Your task to perform on an android device: Open calendar and show me the first week of next month Image 0: 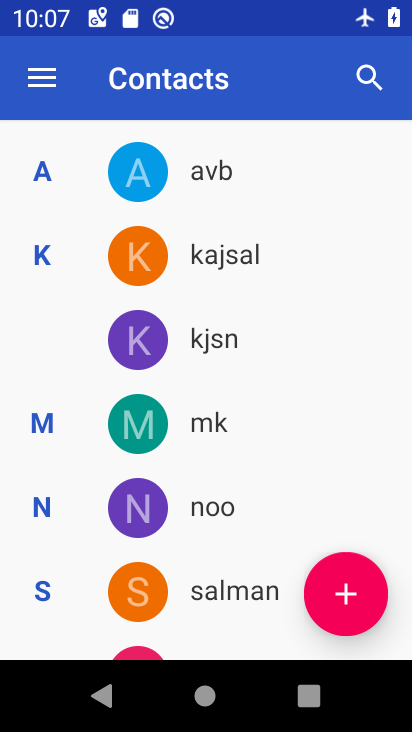
Step 0: press home button
Your task to perform on an android device: Open calendar and show me the first week of next month Image 1: 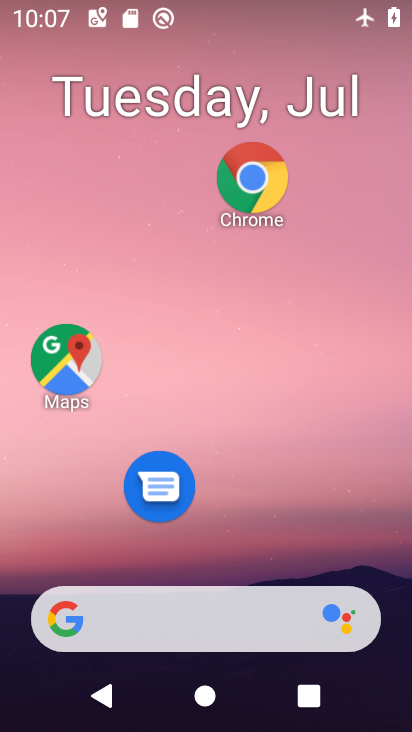
Step 1: drag from (176, 652) to (141, 69)
Your task to perform on an android device: Open calendar and show me the first week of next month Image 2: 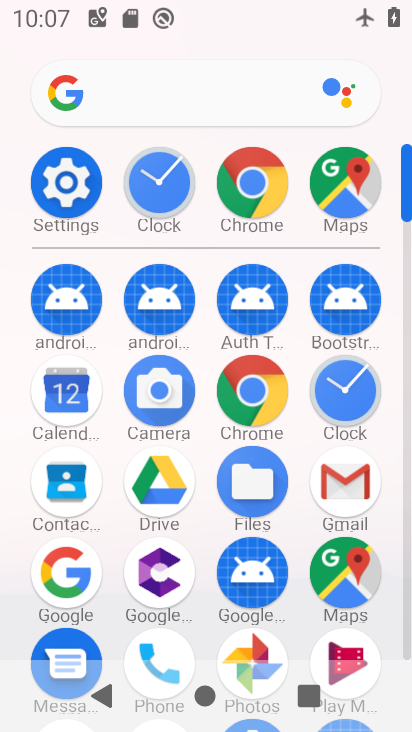
Step 2: drag from (209, 511) to (260, 278)
Your task to perform on an android device: Open calendar and show me the first week of next month Image 3: 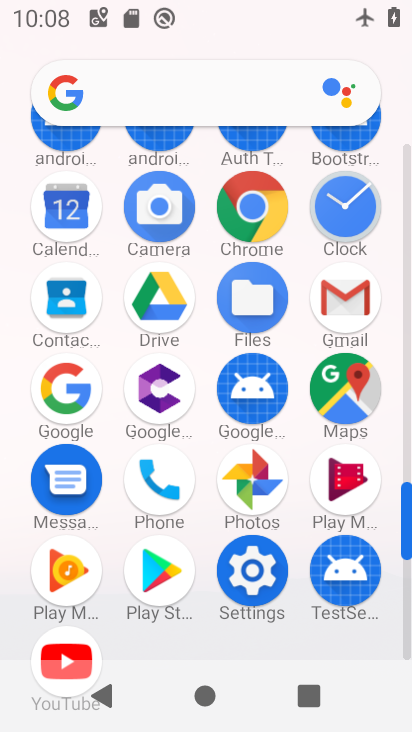
Step 3: click (81, 216)
Your task to perform on an android device: Open calendar and show me the first week of next month Image 4: 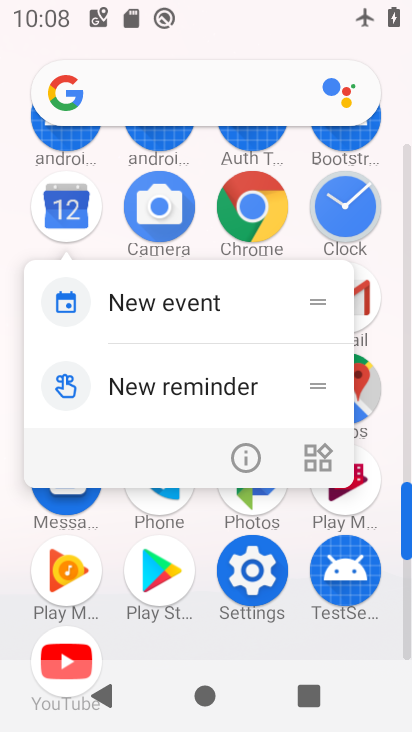
Step 4: click (68, 214)
Your task to perform on an android device: Open calendar and show me the first week of next month Image 5: 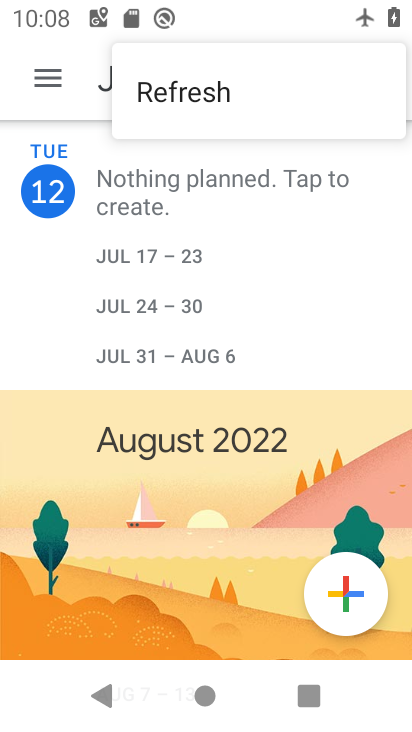
Step 5: click (58, 302)
Your task to perform on an android device: Open calendar and show me the first week of next month Image 6: 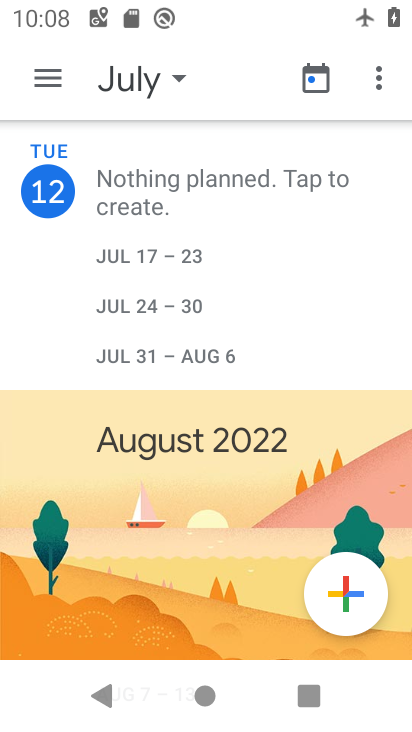
Step 6: click (175, 79)
Your task to perform on an android device: Open calendar and show me the first week of next month Image 7: 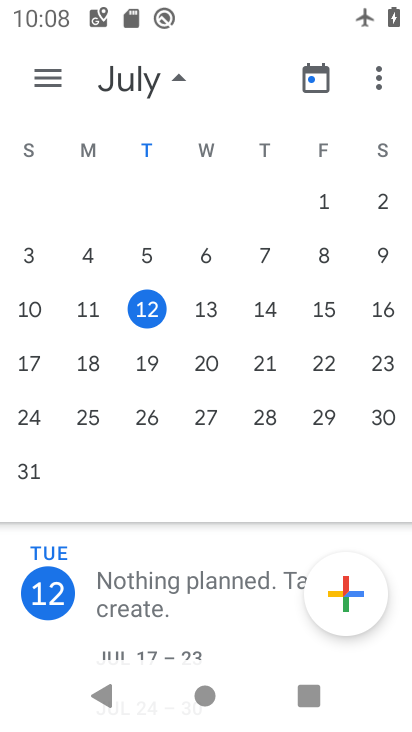
Step 7: drag from (330, 346) to (20, 450)
Your task to perform on an android device: Open calendar and show me the first week of next month Image 8: 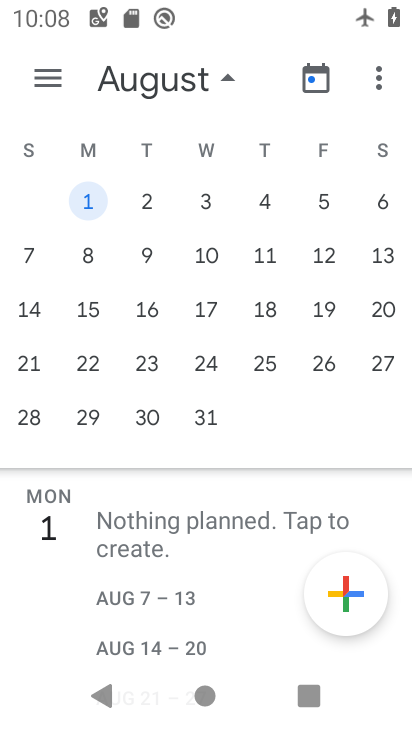
Step 8: click (100, 205)
Your task to perform on an android device: Open calendar and show me the first week of next month Image 9: 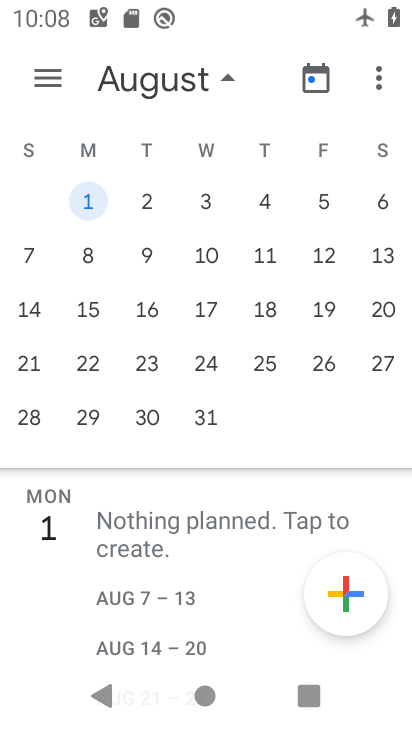
Step 9: task complete